Your task to perform on an android device: snooze an email in the gmail app Image 0: 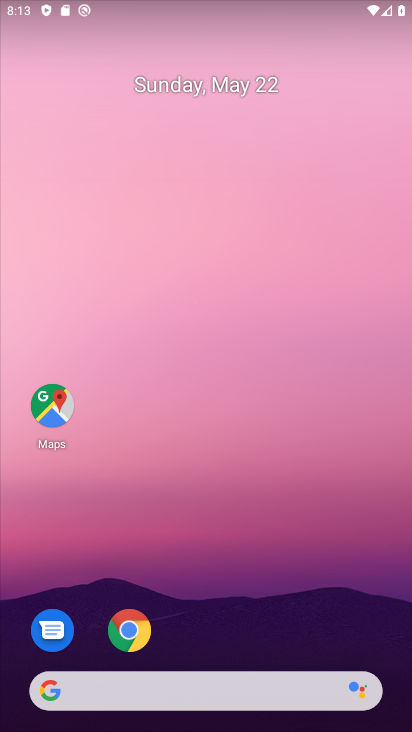
Step 0: press home button
Your task to perform on an android device: snooze an email in the gmail app Image 1: 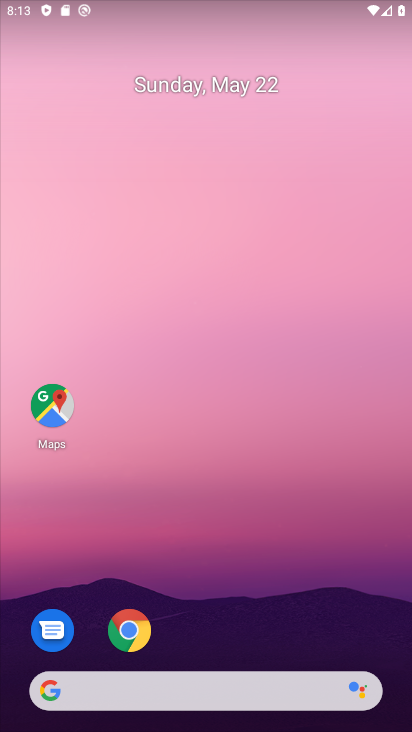
Step 1: drag from (167, 658) to (352, 142)
Your task to perform on an android device: snooze an email in the gmail app Image 2: 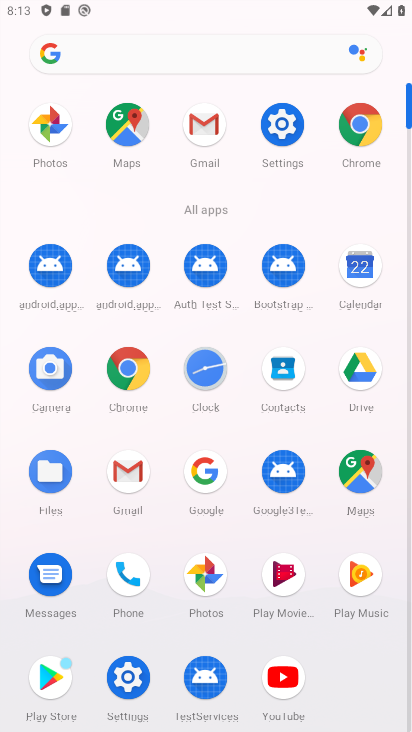
Step 2: click (198, 132)
Your task to perform on an android device: snooze an email in the gmail app Image 3: 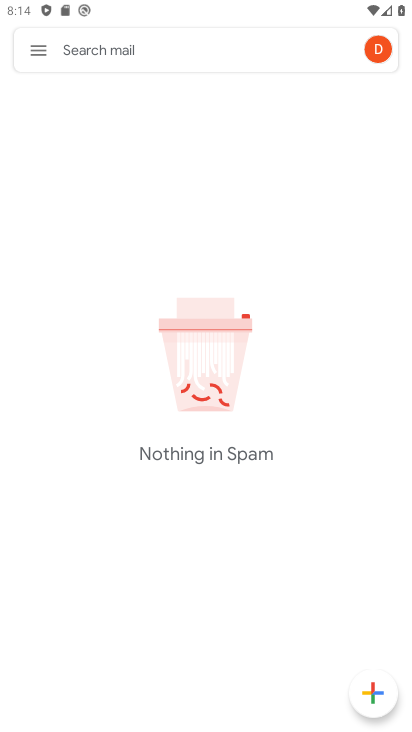
Step 3: click (33, 48)
Your task to perform on an android device: snooze an email in the gmail app Image 4: 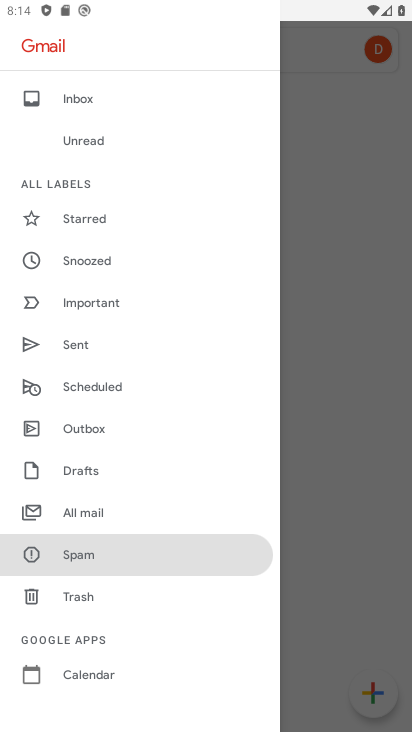
Step 4: click (95, 511)
Your task to perform on an android device: snooze an email in the gmail app Image 5: 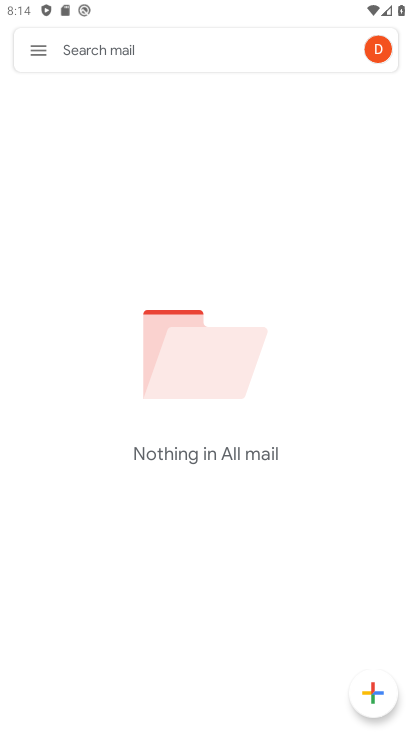
Step 5: task complete